Your task to perform on an android device: toggle wifi Image 0: 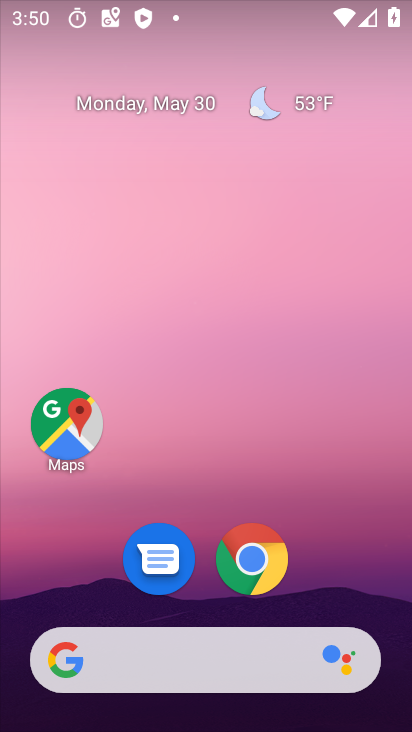
Step 0: drag from (194, 725) to (180, 66)
Your task to perform on an android device: toggle wifi Image 1: 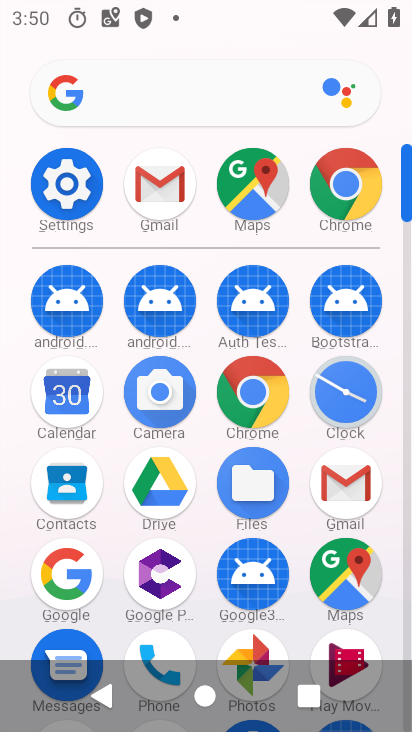
Step 1: click (62, 193)
Your task to perform on an android device: toggle wifi Image 2: 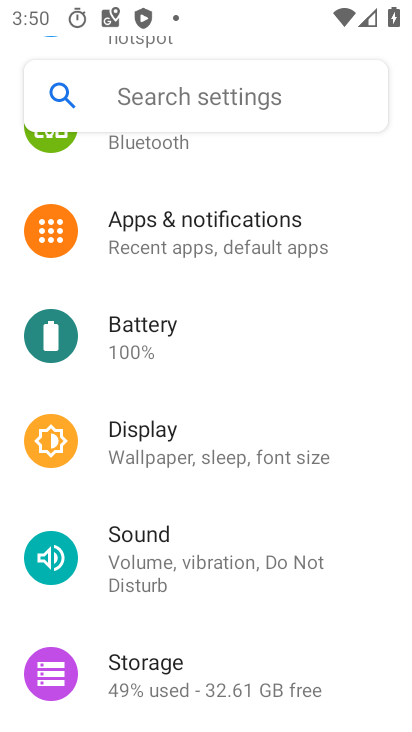
Step 2: drag from (263, 200) to (309, 634)
Your task to perform on an android device: toggle wifi Image 3: 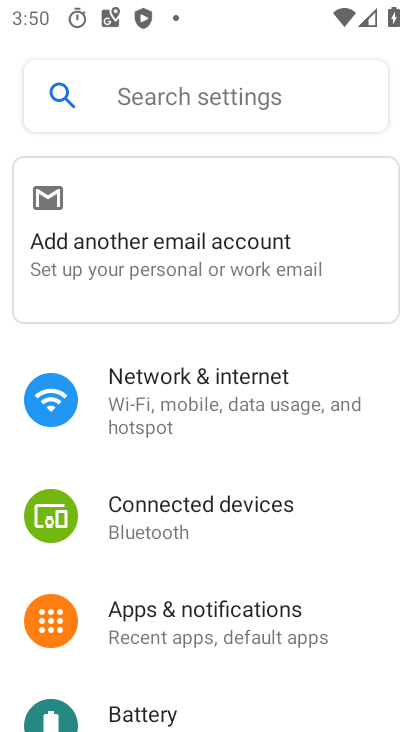
Step 3: click (142, 393)
Your task to perform on an android device: toggle wifi Image 4: 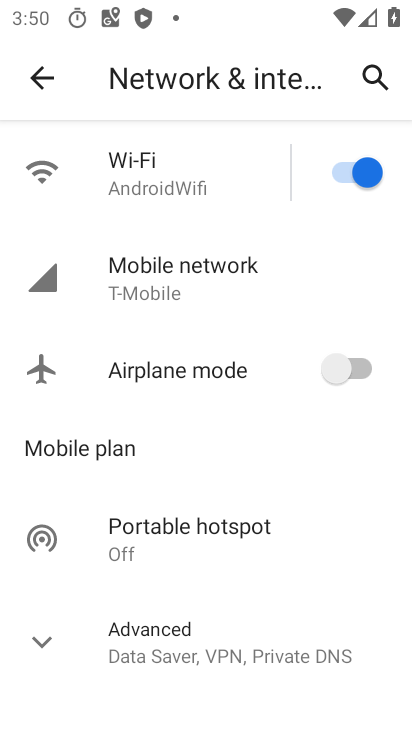
Step 4: click (340, 171)
Your task to perform on an android device: toggle wifi Image 5: 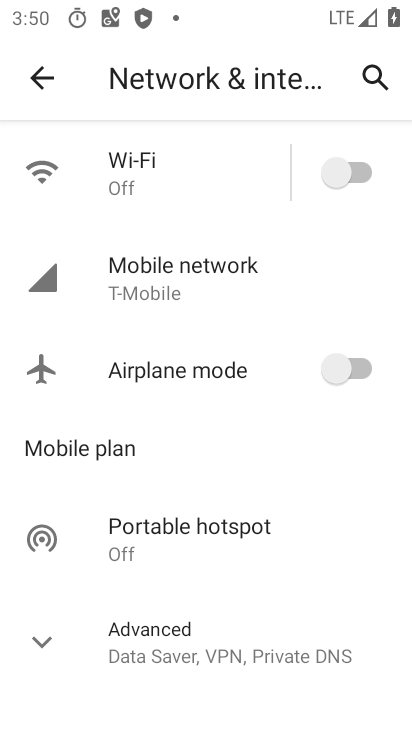
Step 5: task complete